Your task to perform on an android device: See recent photos Image 0: 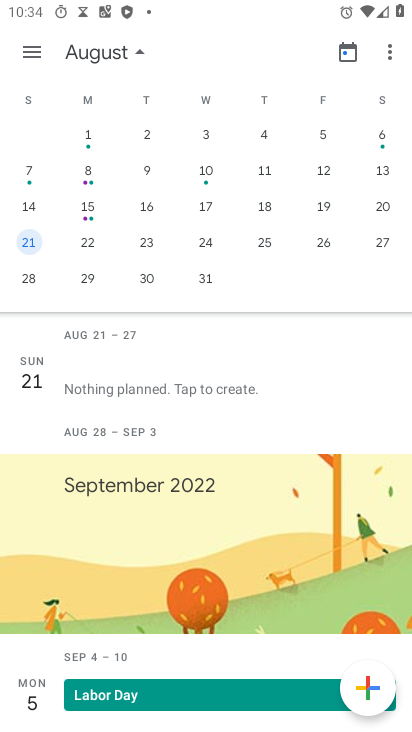
Step 0: press home button
Your task to perform on an android device: See recent photos Image 1: 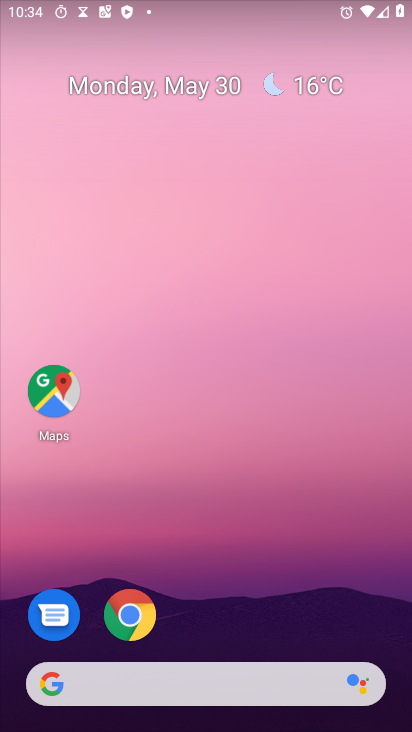
Step 1: click (307, 90)
Your task to perform on an android device: See recent photos Image 2: 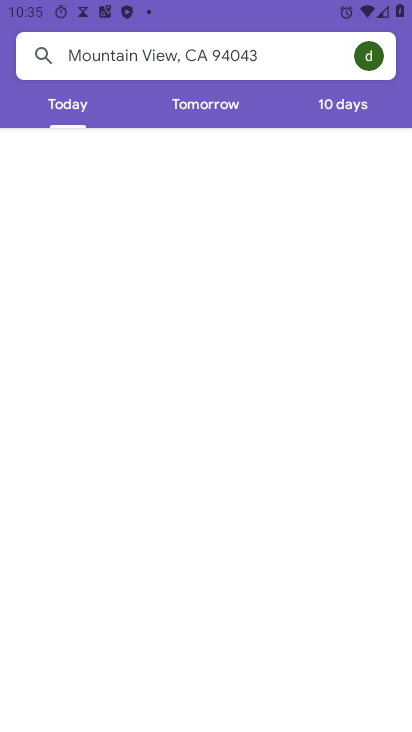
Step 2: press home button
Your task to perform on an android device: See recent photos Image 3: 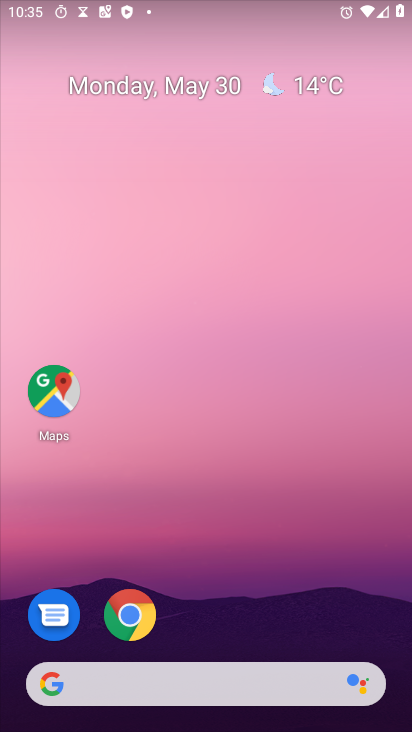
Step 3: drag from (332, 607) to (357, 169)
Your task to perform on an android device: See recent photos Image 4: 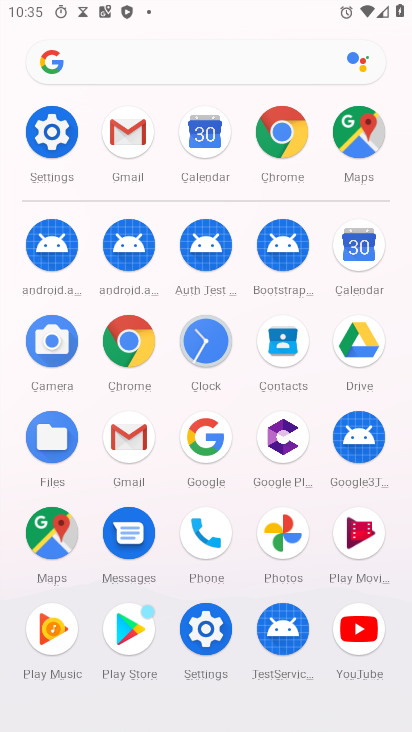
Step 4: click (299, 543)
Your task to perform on an android device: See recent photos Image 5: 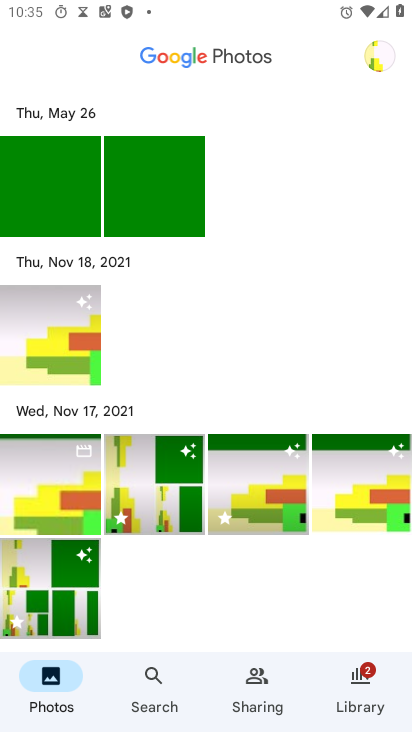
Step 5: click (26, 482)
Your task to perform on an android device: See recent photos Image 6: 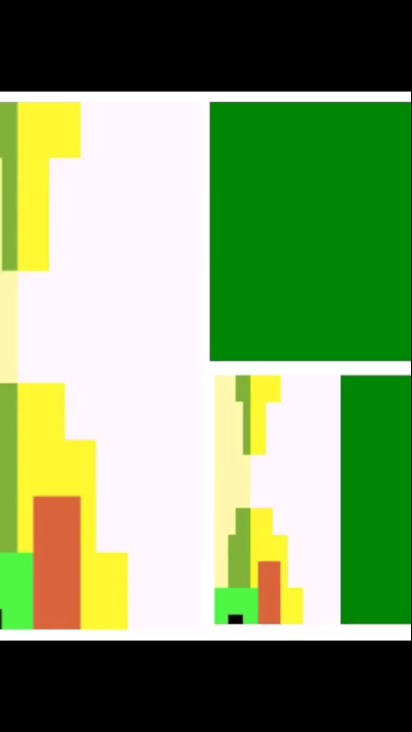
Step 6: task complete